Your task to perform on an android device: Turn on the flashlight Image 0: 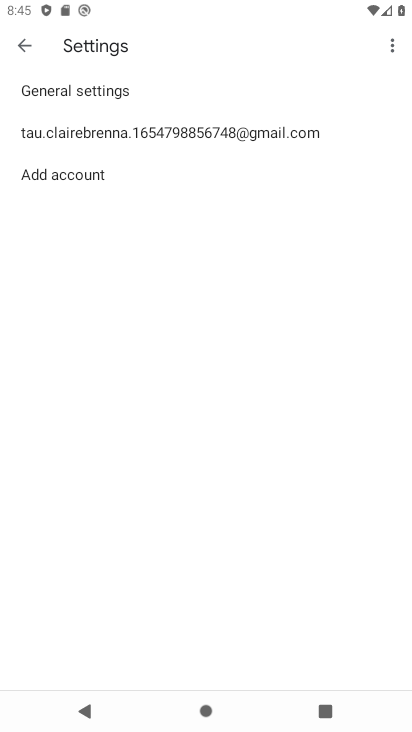
Step 0: press home button
Your task to perform on an android device: Turn on the flashlight Image 1: 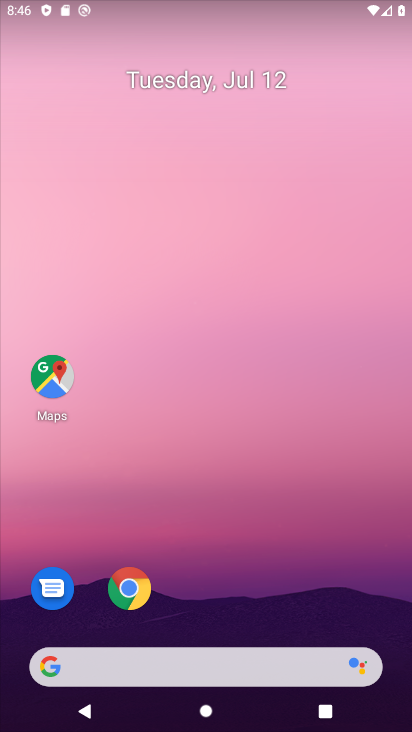
Step 1: drag from (253, 577) to (177, 34)
Your task to perform on an android device: Turn on the flashlight Image 2: 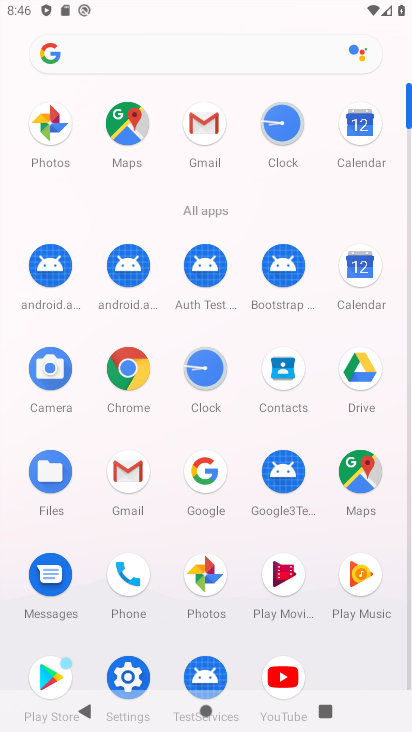
Step 2: click (129, 677)
Your task to perform on an android device: Turn on the flashlight Image 3: 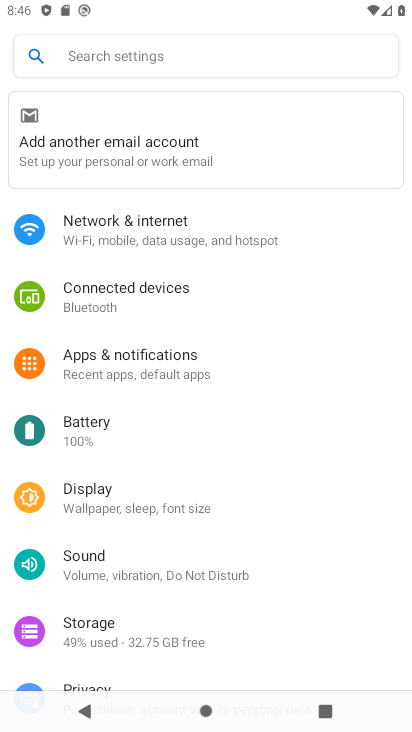
Step 3: click (95, 491)
Your task to perform on an android device: Turn on the flashlight Image 4: 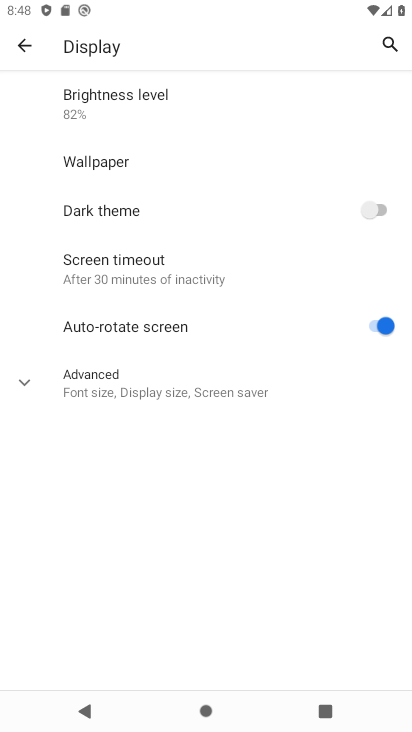
Step 4: task complete